Your task to perform on an android device: check android version Image 0: 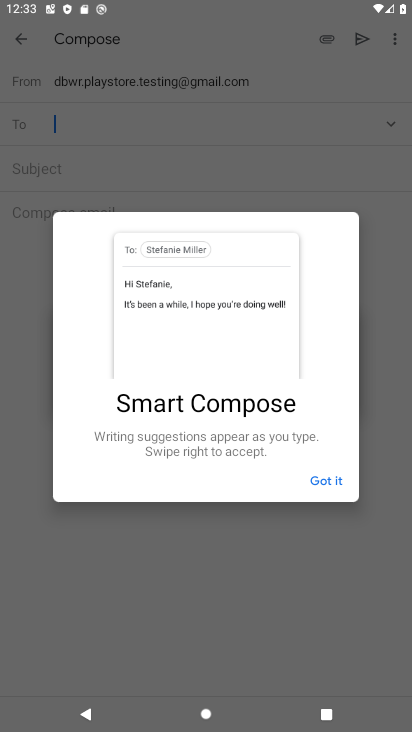
Step 0: press home button
Your task to perform on an android device: check android version Image 1: 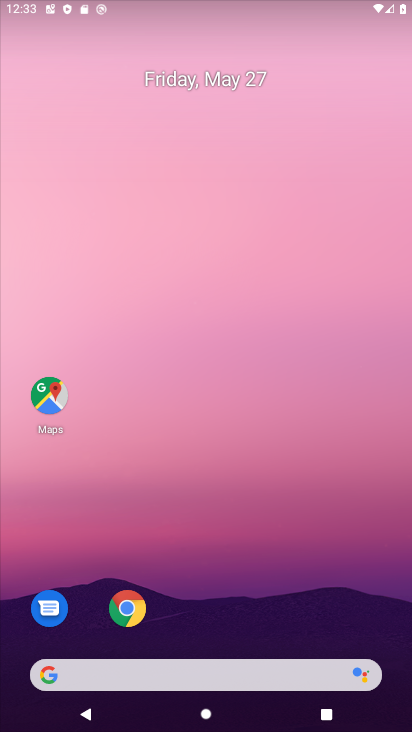
Step 1: drag from (212, 508) to (239, 113)
Your task to perform on an android device: check android version Image 2: 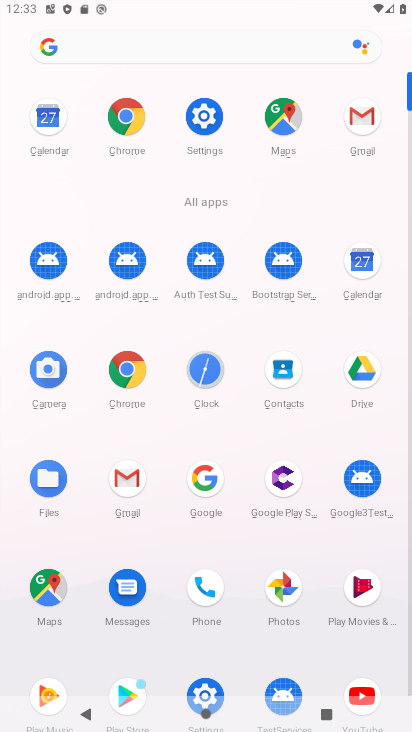
Step 2: click (206, 120)
Your task to perform on an android device: check android version Image 3: 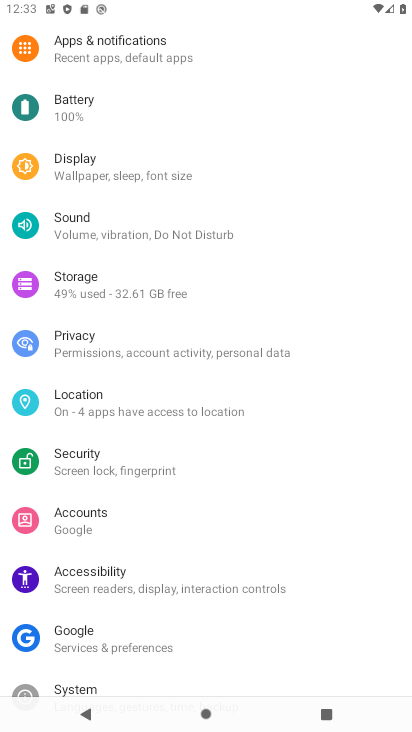
Step 3: drag from (161, 569) to (249, 17)
Your task to perform on an android device: check android version Image 4: 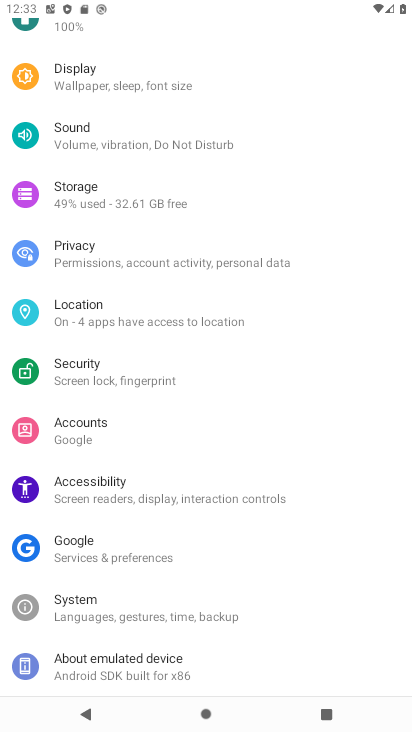
Step 4: click (108, 673)
Your task to perform on an android device: check android version Image 5: 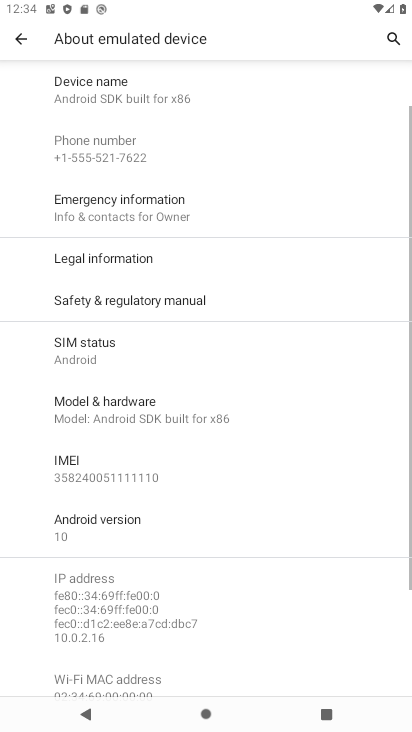
Step 5: drag from (107, 624) to (128, 418)
Your task to perform on an android device: check android version Image 6: 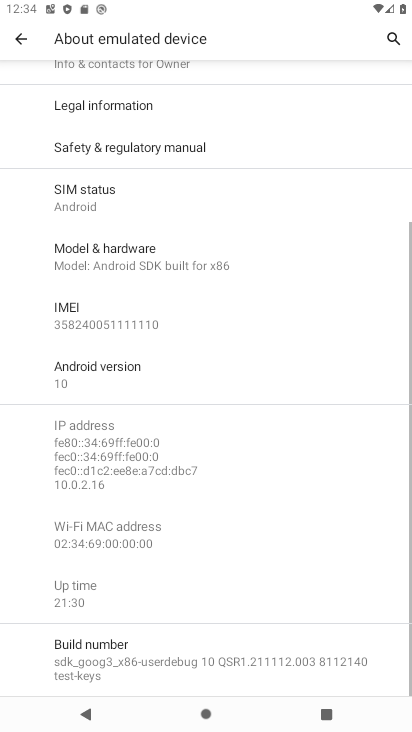
Step 6: click (126, 375)
Your task to perform on an android device: check android version Image 7: 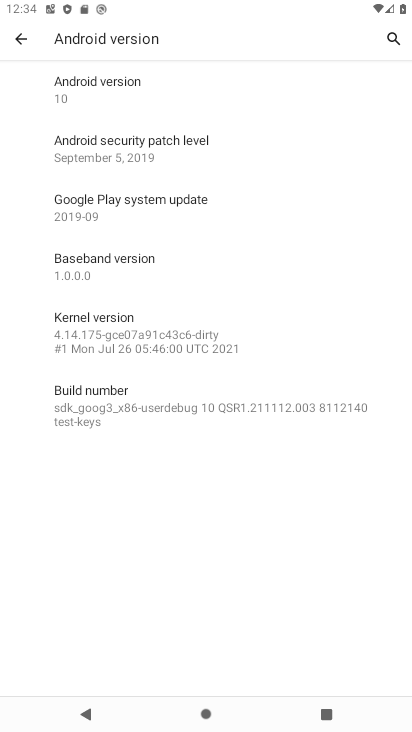
Step 7: task complete